Your task to perform on an android device: Open settings on Google Maps Image 0: 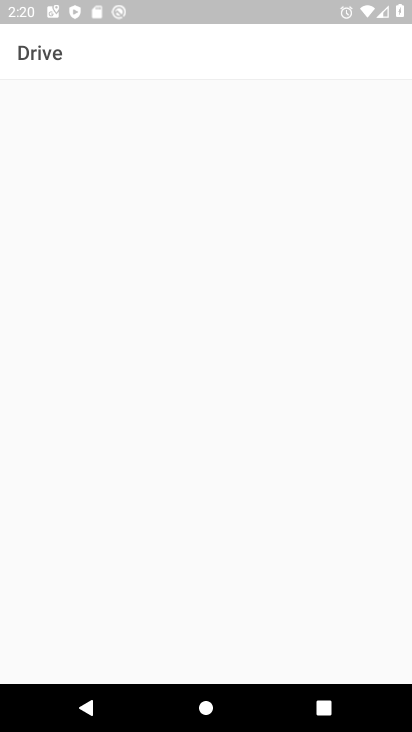
Step 0: press home button
Your task to perform on an android device: Open settings on Google Maps Image 1: 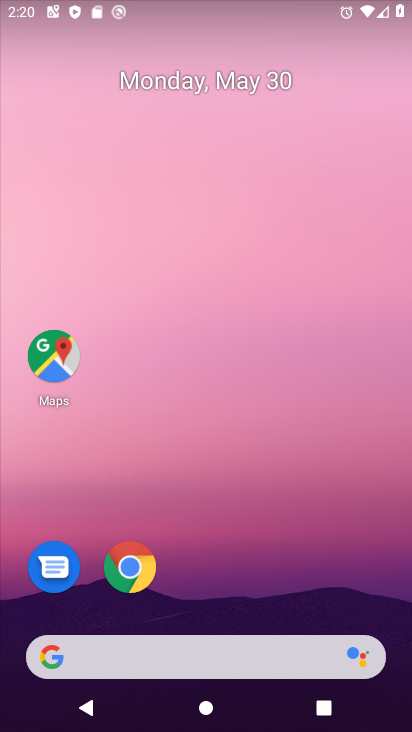
Step 1: click (61, 370)
Your task to perform on an android device: Open settings on Google Maps Image 2: 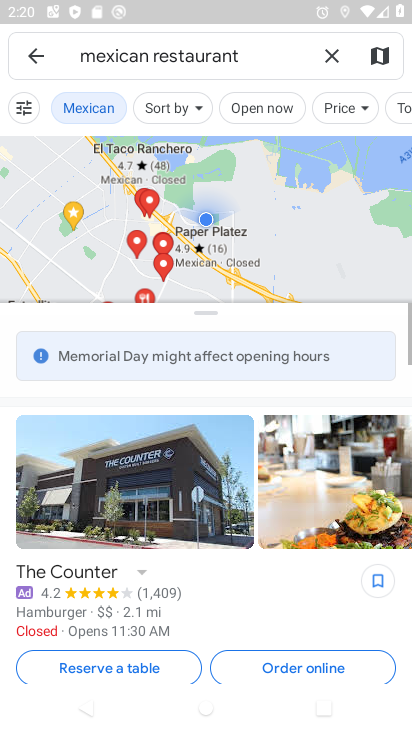
Step 2: click (29, 54)
Your task to perform on an android device: Open settings on Google Maps Image 3: 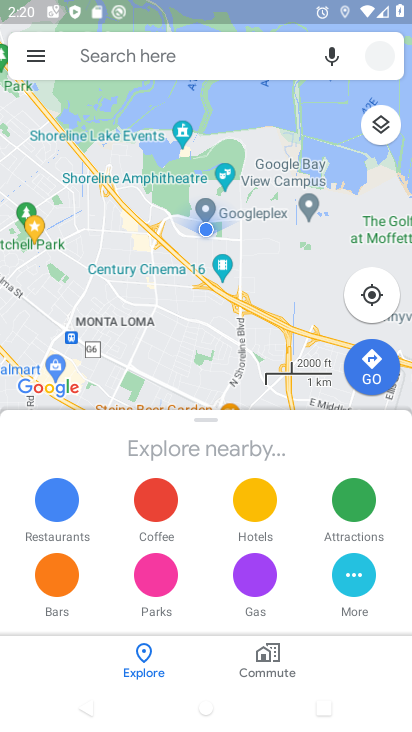
Step 3: click (30, 56)
Your task to perform on an android device: Open settings on Google Maps Image 4: 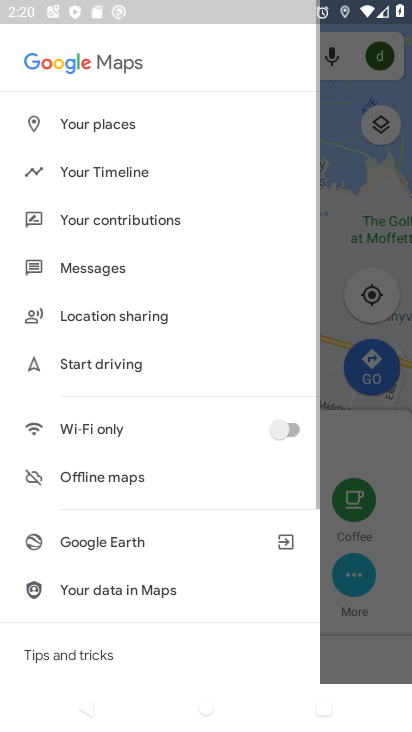
Step 4: drag from (174, 617) to (215, 192)
Your task to perform on an android device: Open settings on Google Maps Image 5: 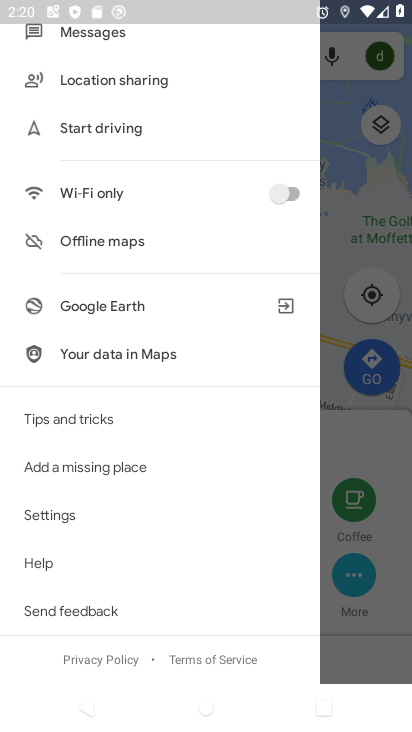
Step 5: click (74, 515)
Your task to perform on an android device: Open settings on Google Maps Image 6: 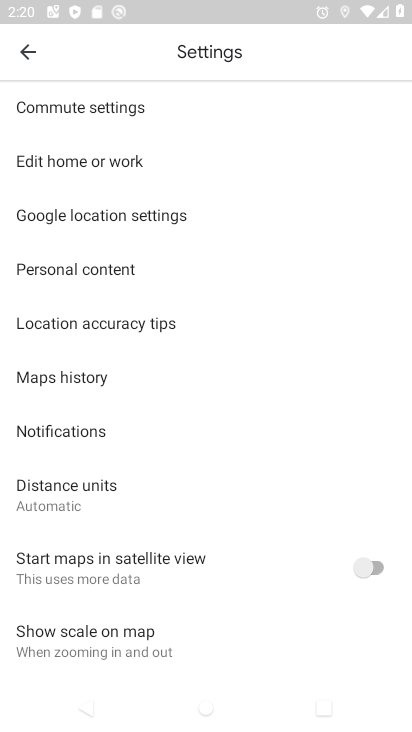
Step 6: task complete